Your task to perform on an android device: allow notifications from all sites in the chrome app Image 0: 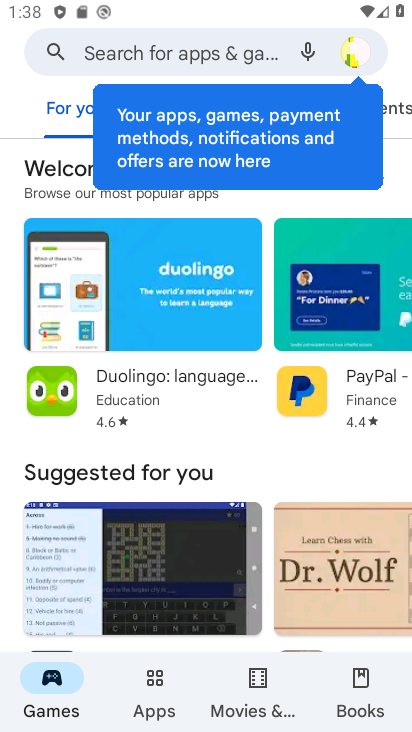
Step 0: press home button
Your task to perform on an android device: allow notifications from all sites in the chrome app Image 1: 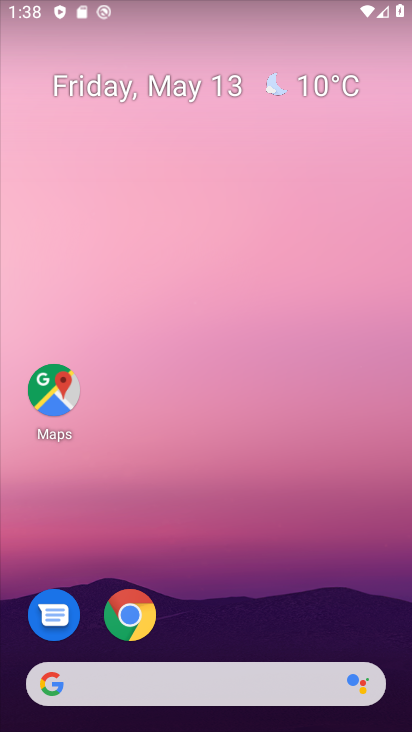
Step 1: drag from (238, 601) to (132, 216)
Your task to perform on an android device: allow notifications from all sites in the chrome app Image 2: 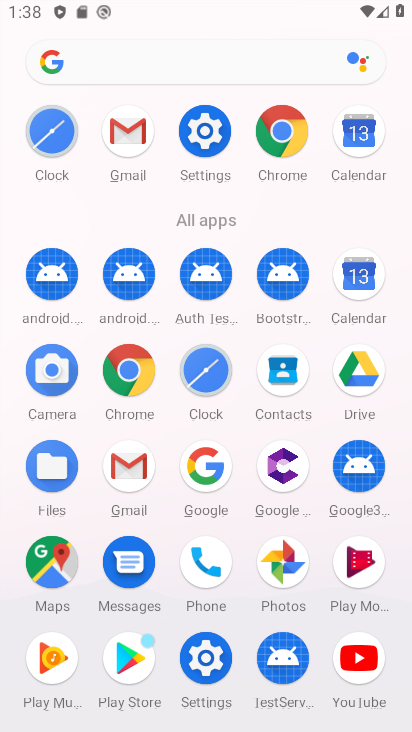
Step 2: click (301, 137)
Your task to perform on an android device: allow notifications from all sites in the chrome app Image 3: 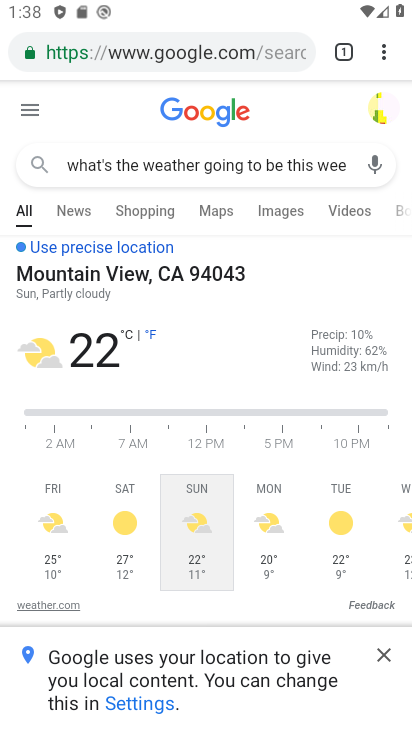
Step 3: click (385, 52)
Your task to perform on an android device: allow notifications from all sites in the chrome app Image 4: 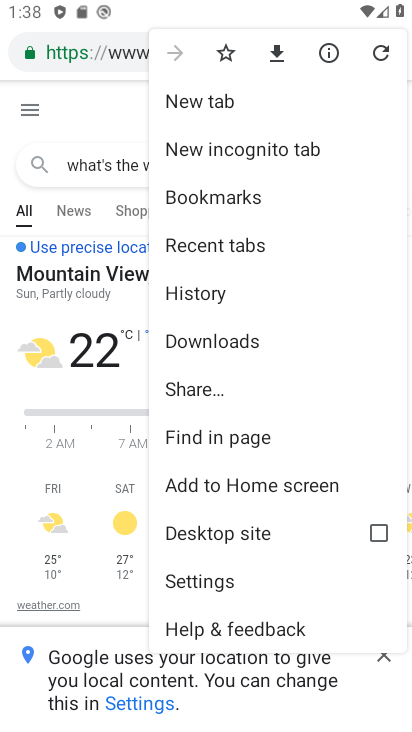
Step 4: click (209, 579)
Your task to perform on an android device: allow notifications from all sites in the chrome app Image 5: 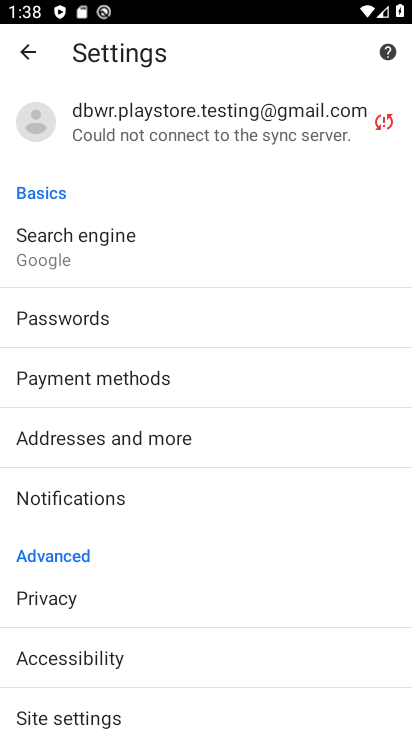
Step 5: click (72, 495)
Your task to perform on an android device: allow notifications from all sites in the chrome app Image 6: 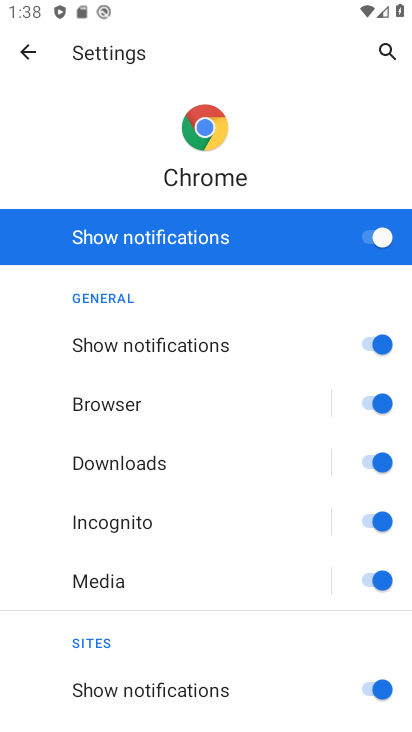
Step 6: task complete